Your task to perform on an android device: turn off location Image 0: 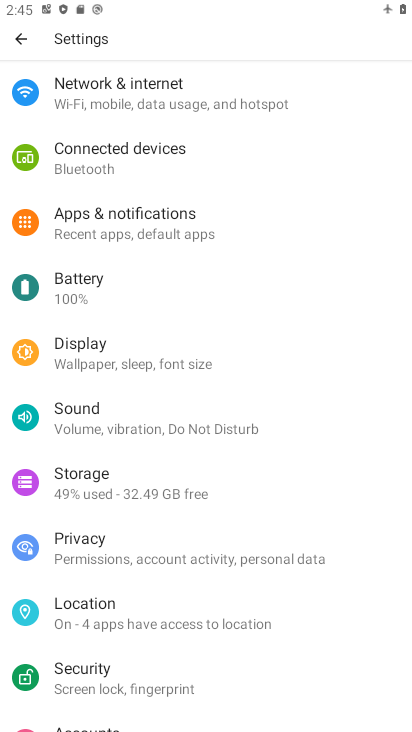
Step 0: click (72, 619)
Your task to perform on an android device: turn off location Image 1: 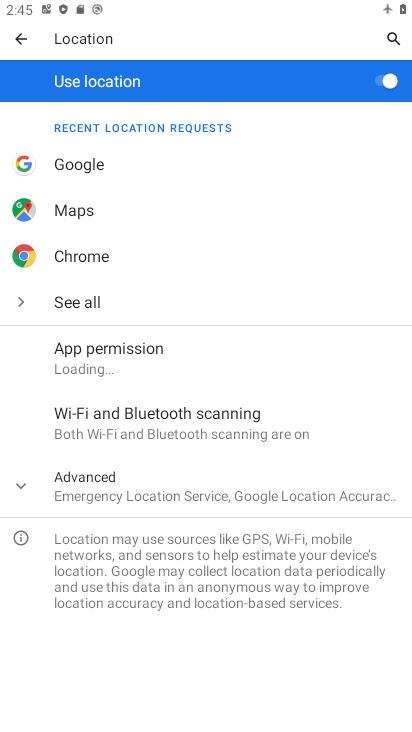
Step 1: click (376, 74)
Your task to perform on an android device: turn off location Image 2: 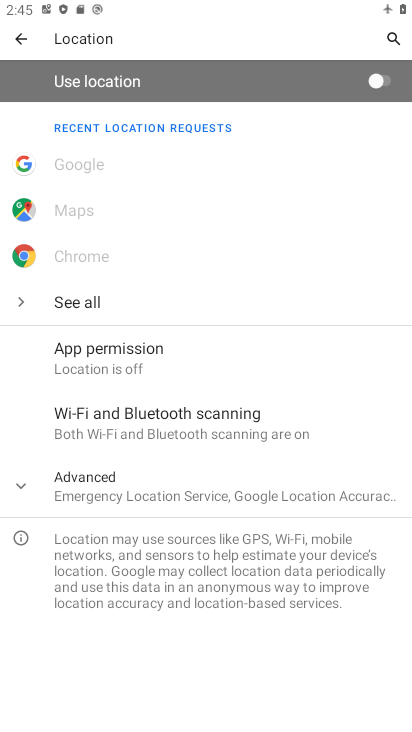
Step 2: task complete